Your task to perform on an android device: open wifi settings Image 0: 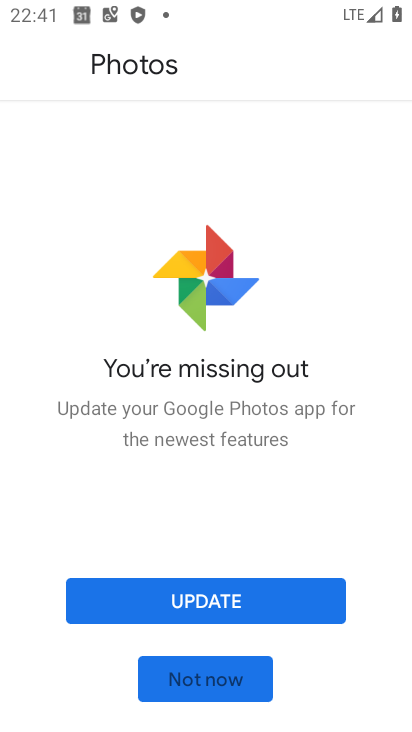
Step 0: drag from (172, 13) to (207, 565)
Your task to perform on an android device: open wifi settings Image 1: 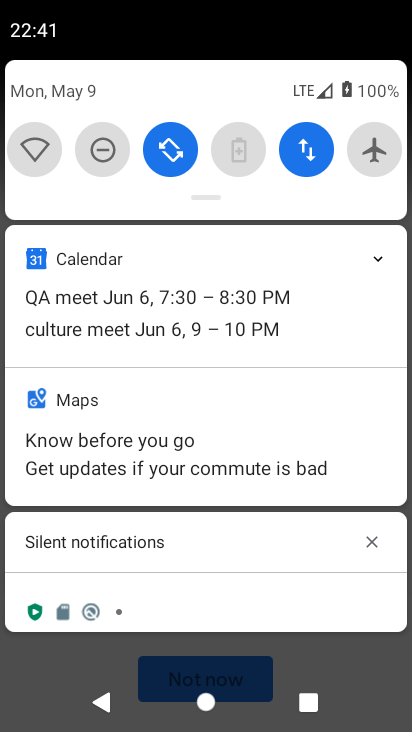
Step 1: click (54, 154)
Your task to perform on an android device: open wifi settings Image 2: 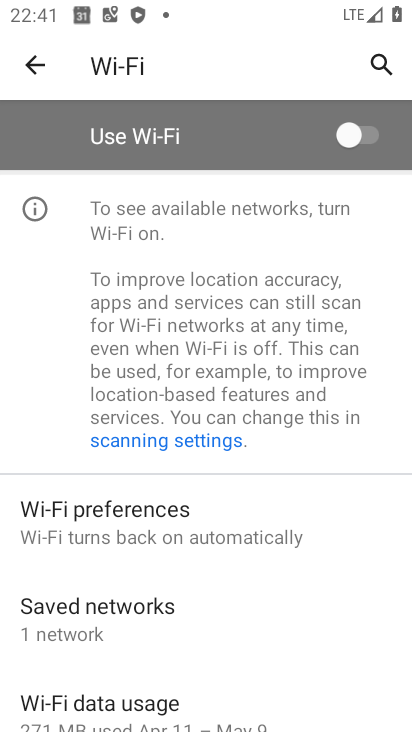
Step 2: task complete